Your task to perform on an android device: Is it going to rain tomorrow? Image 0: 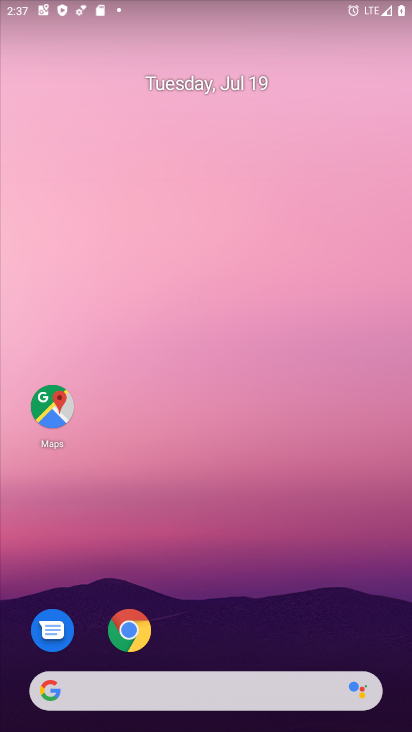
Step 0: press home button
Your task to perform on an android device: Is it going to rain tomorrow? Image 1: 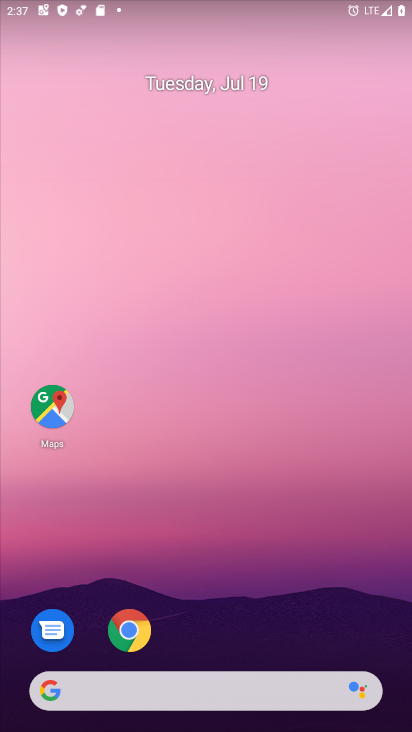
Step 1: click (195, 687)
Your task to perform on an android device: Is it going to rain tomorrow? Image 2: 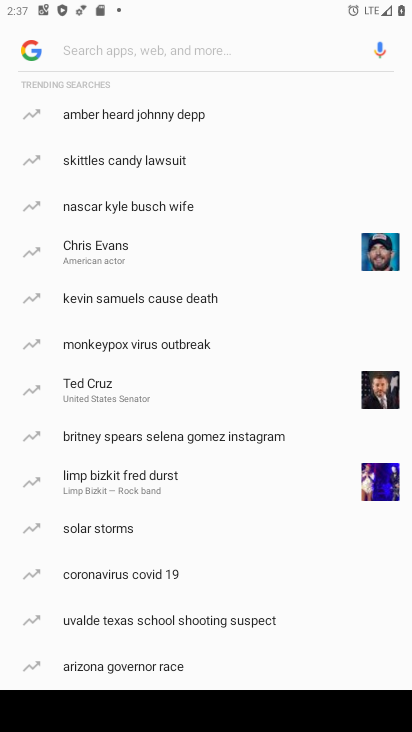
Step 2: click (120, 41)
Your task to perform on an android device: Is it going to rain tomorrow? Image 3: 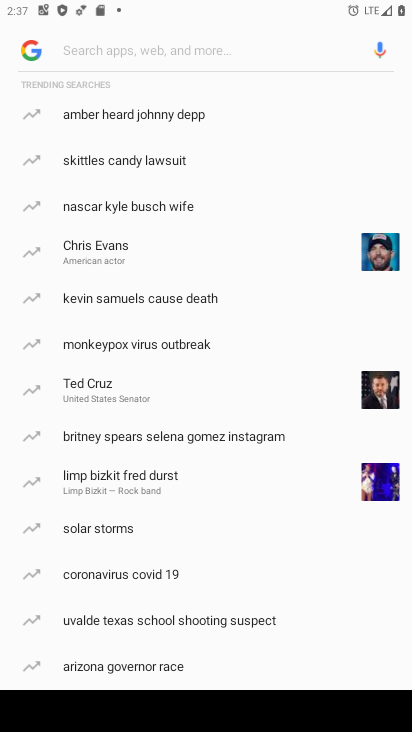
Step 3: type "Is it going to rain tomorrow?"
Your task to perform on an android device: Is it going to rain tomorrow? Image 4: 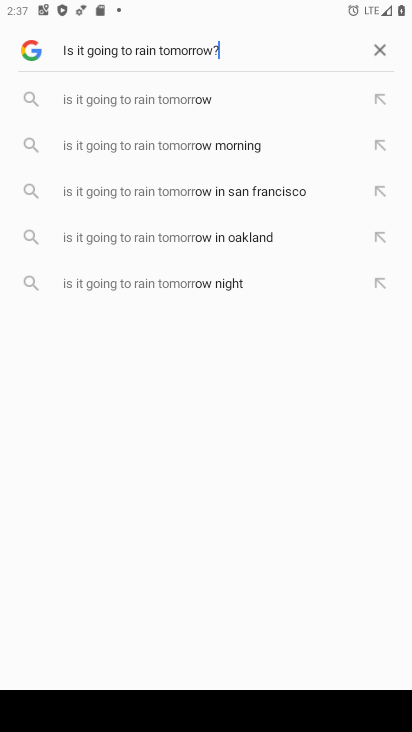
Step 4: type ""
Your task to perform on an android device: Is it going to rain tomorrow? Image 5: 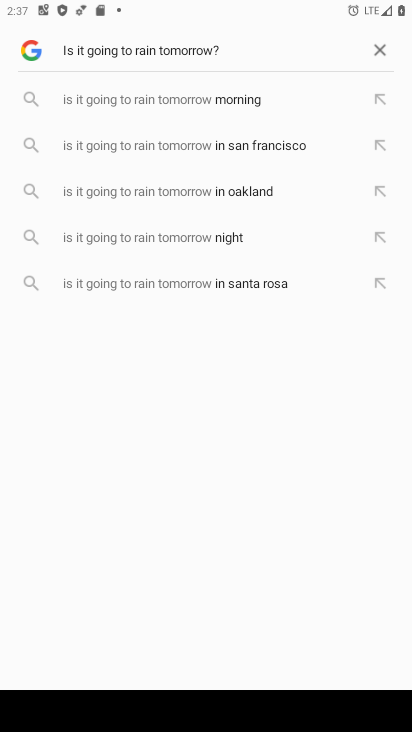
Step 5: click (250, 95)
Your task to perform on an android device: Is it going to rain tomorrow? Image 6: 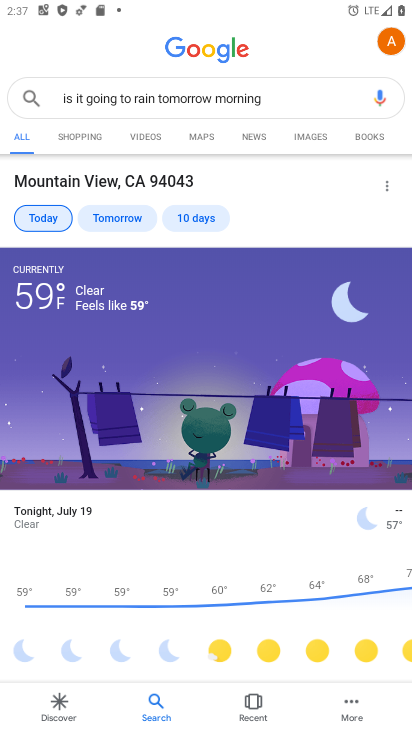
Step 6: task complete